Your task to perform on an android device: show emergency info Image 0: 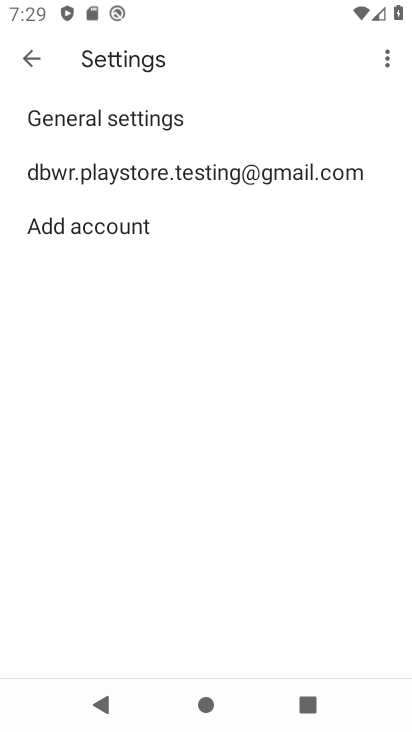
Step 0: press home button
Your task to perform on an android device: show emergency info Image 1: 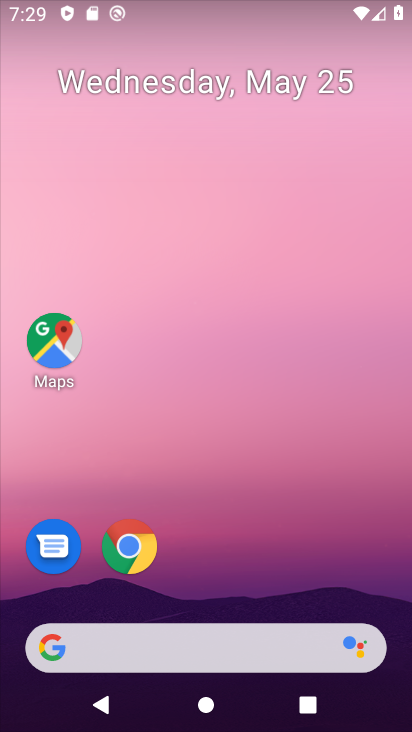
Step 1: drag from (387, 608) to (384, 166)
Your task to perform on an android device: show emergency info Image 2: 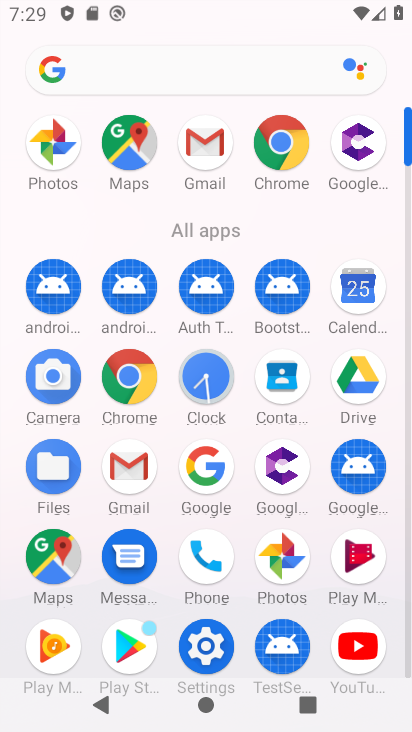
Step 2: drag from (392, 595) to (400, 401)
Your task to perform on an android device: show emergency info Image 3: 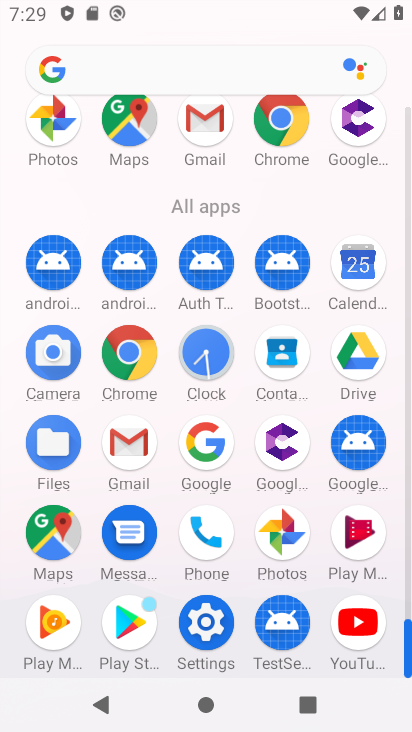
Step 3: click (213, 637)
Your task to perform on an android device: show emergency info Image 4: 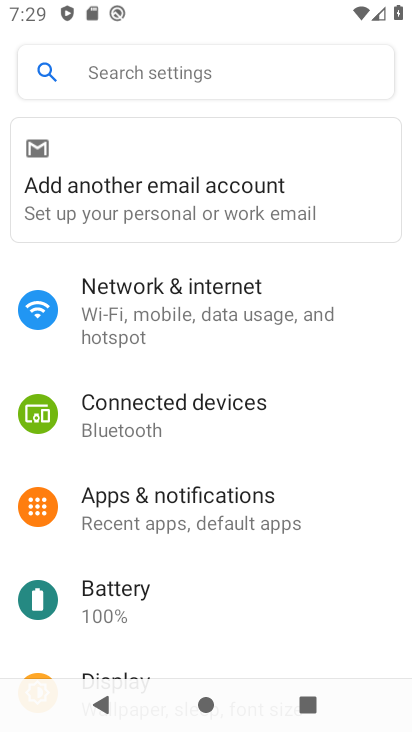
Step 4: drag from (368, 565) to (362, 448)
Your task to perform on an android device: show emergency info Image 5: 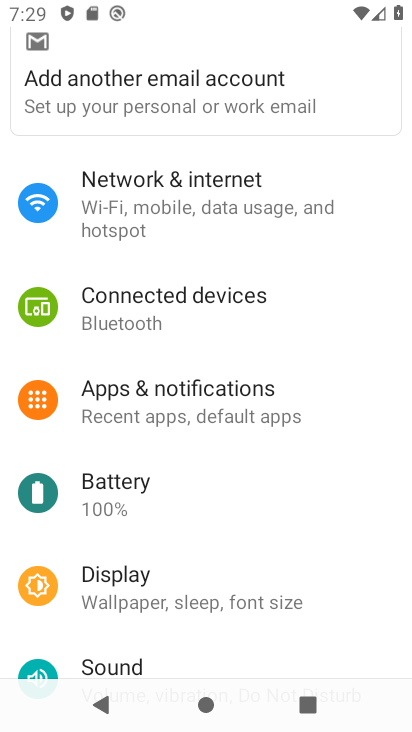
Step 5: drag from (383, 597) to (398, 447)
Your task to perform on an android device: show emergency info Image 6: 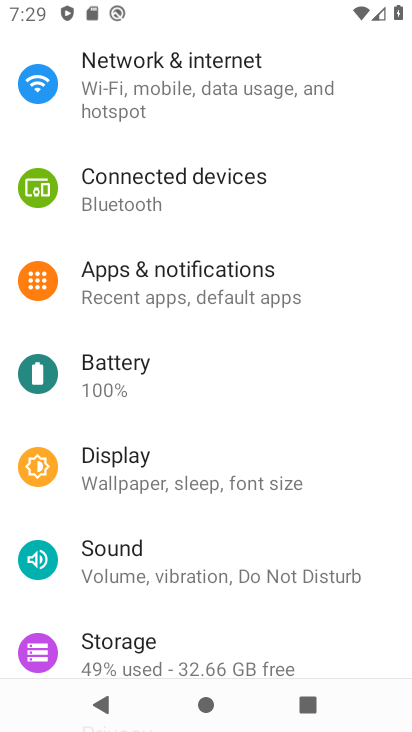
Step 6: drag from (382, 633) to (381, 476)
Your task to perform on an android device: show emergency info Image 7: 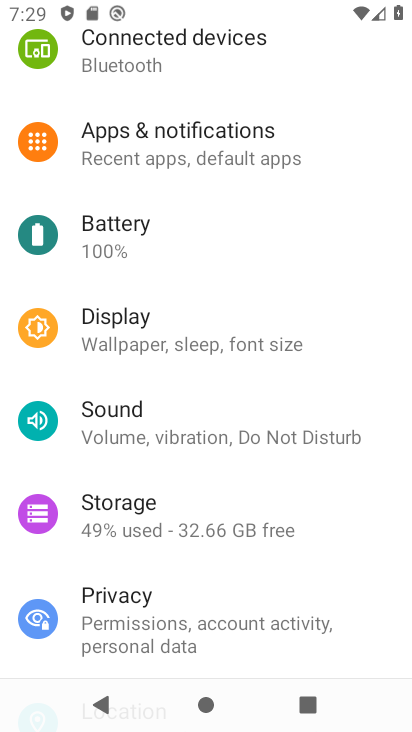
Step 7: drag from (365, 641) to (379, 471)
Your task to perform on an android device: show emergency info Image 8: 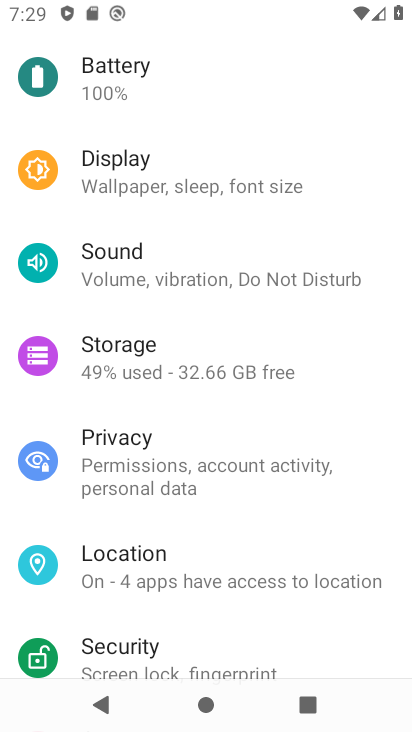
Step 8: drag from (374, 642) to (367, 497)
Your task to perform on an android device: show emergency info Image 9: 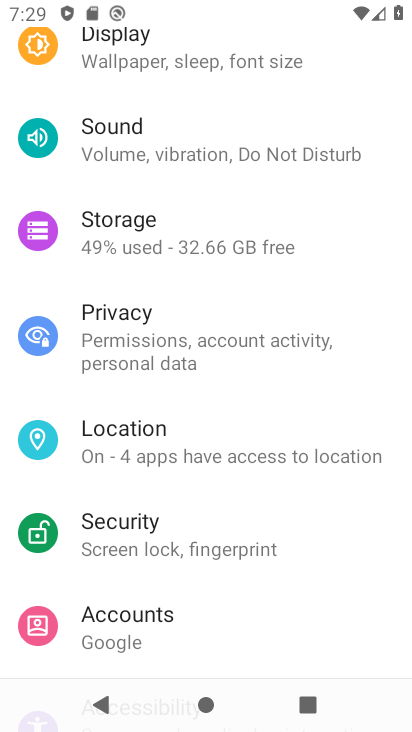
Step 9: drag from (377, 606) to (383, 479)
Your task to perform on an android device: show emergency info Image 10: 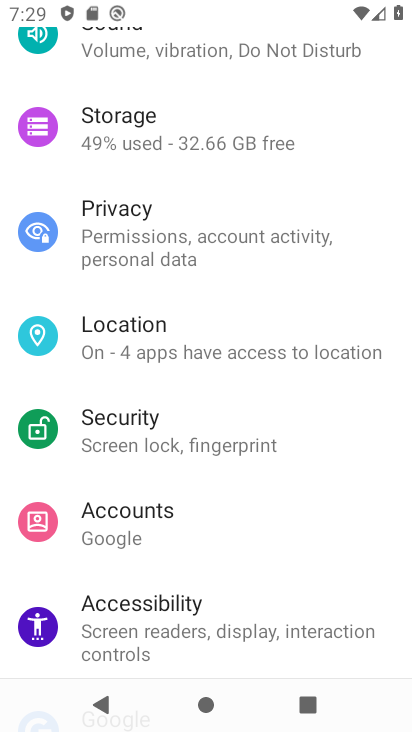
Step 10: drag from (377, 638) to (378, 495)
Your task to perform on an android device: show emergency info Image 11: 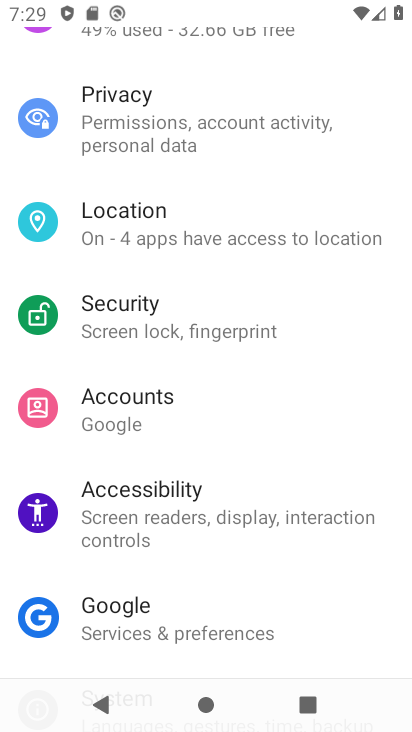
Step 11: drag from (392, 646) to (402, 503)
Your task to perform on an android device: show emergency info Image 12: 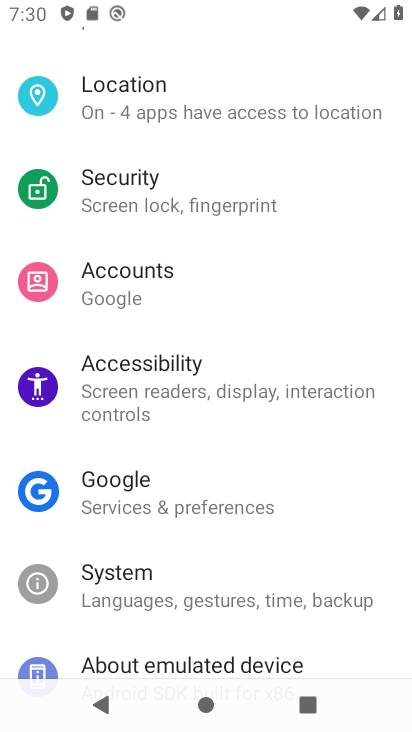
Step 12: drag from (388, 649) to (393, 500)
Your task to perform on an android device: show emergency info Image 13: 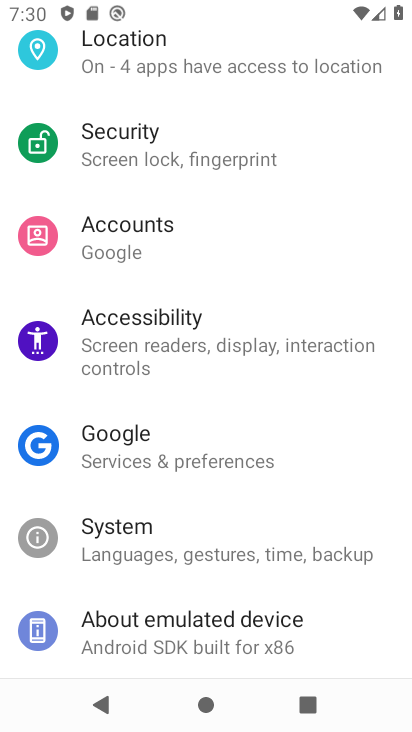
Step 13: click (274, 629)
Your task to perform on an android device: show emergency info Image 14: 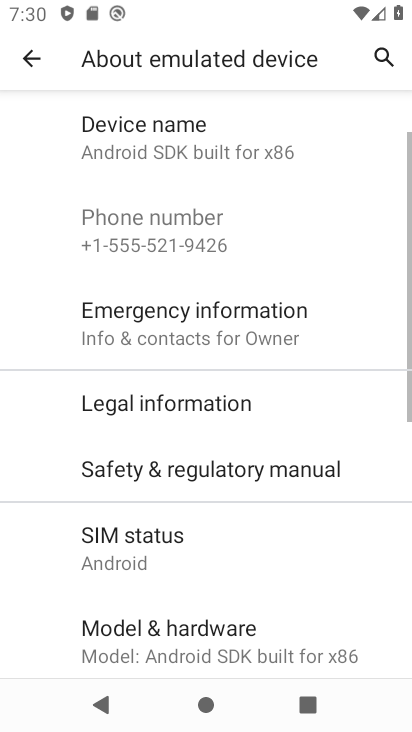
Step 14: drag from (352, 592) to (363, 482)
Your task to perform on an android device: show emergency info Image 15: 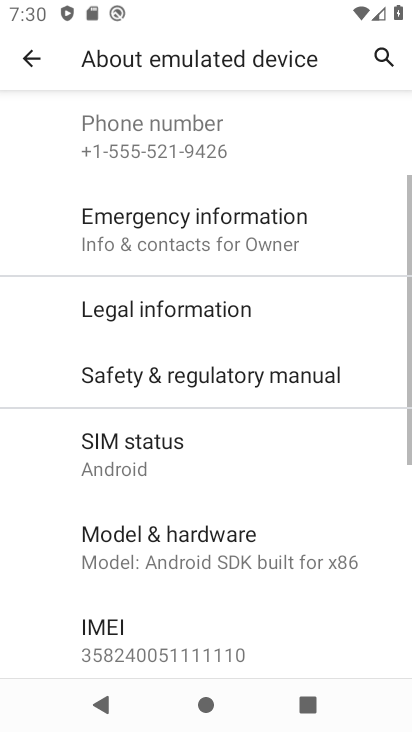
Step 15: click (315, 240)
Your task to perform on an android device: show emergency info Image 16: 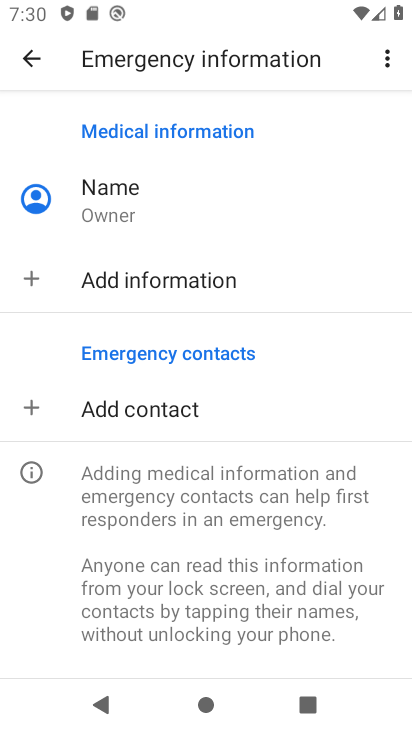
Step 16: task complete